Your task to perform on an android device: stop showing notifications on the lock screen Image 0: 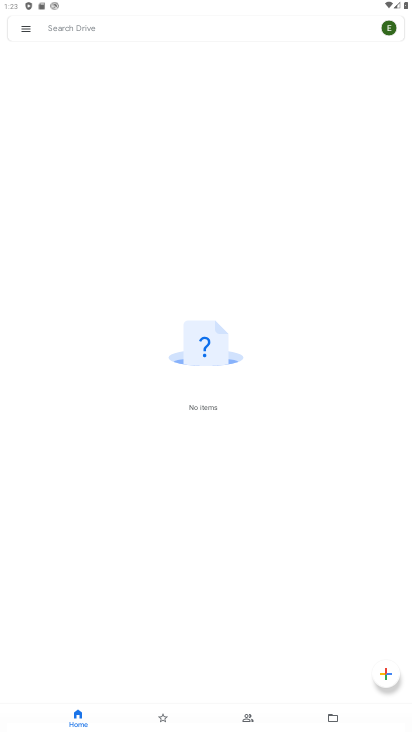
Step 0: press home button
Your task to perform on an android device: stop showing notifications on the lock screen Image 1: 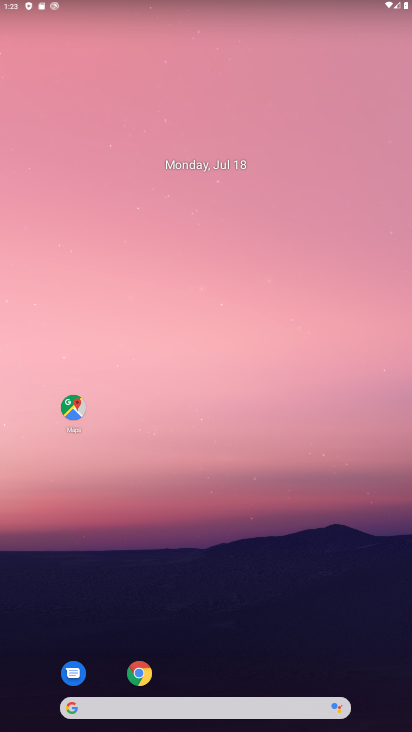
Step 1: drag from (255, 711) to (280, 173)
Your task to perform on an android device: stop showing notifications on the lock screen Image 2: 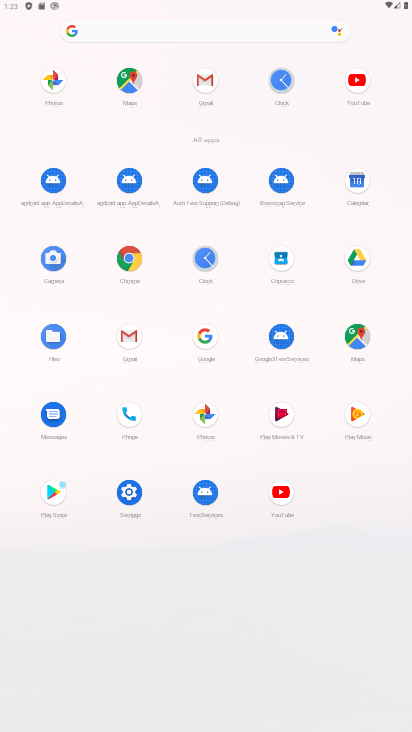
Step 2: click (139, 497)
Your task to perform on an android device: stop showing notifications on the lock screen Image 3: 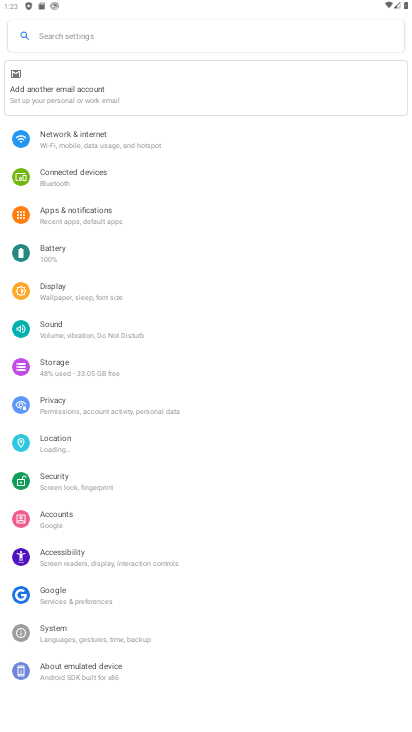
Step 3: click (92, 36)
Your task to perform on an android device: stop showing notifications on the lock screen Image 4: 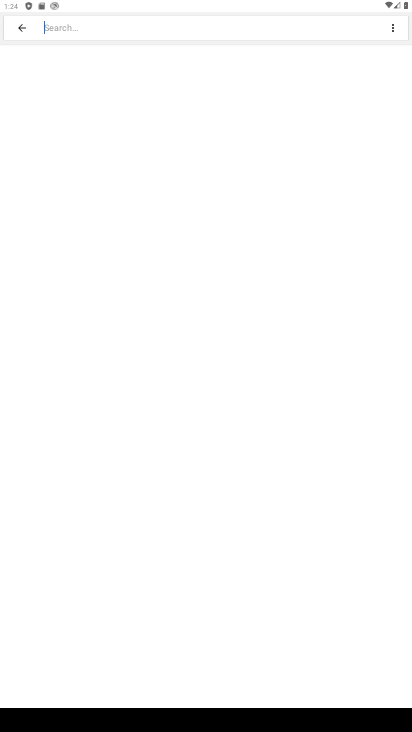
Step 4: drag from (365, 724) to (409, 537)
Your task to perform on an android device: stop showing notifications on the lock screen Image 5: 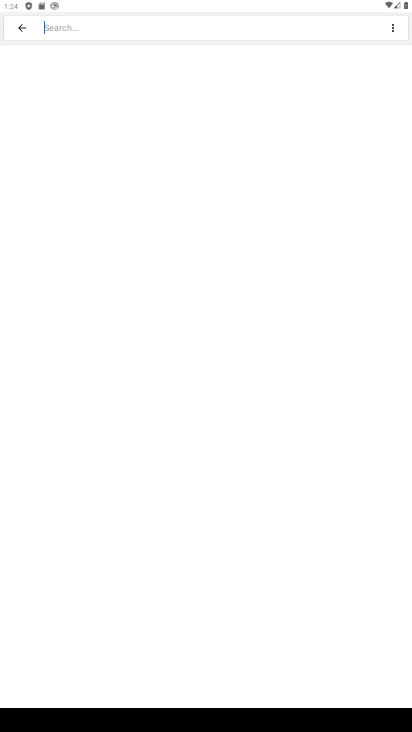
Step 5: click (392, 714)
Your task to perform on an android device: stop showing notifications on the lock screen Image 6: 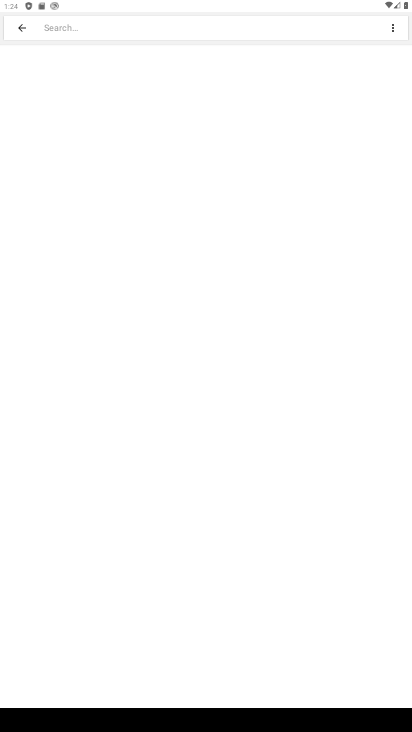
Step 6: click (92, 12)
Your task to perform on an android device: stop showing notifications on the lock screen Image 7: 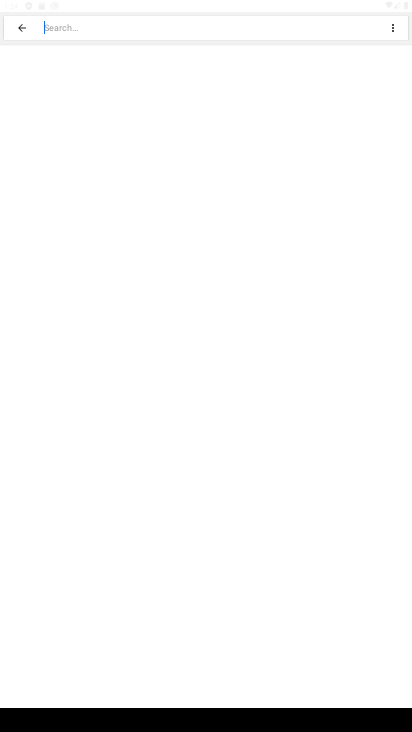
Step 7: click (362, 721)
Your task to perform on an android device: stop showing notifications on the lock screen Image 8: 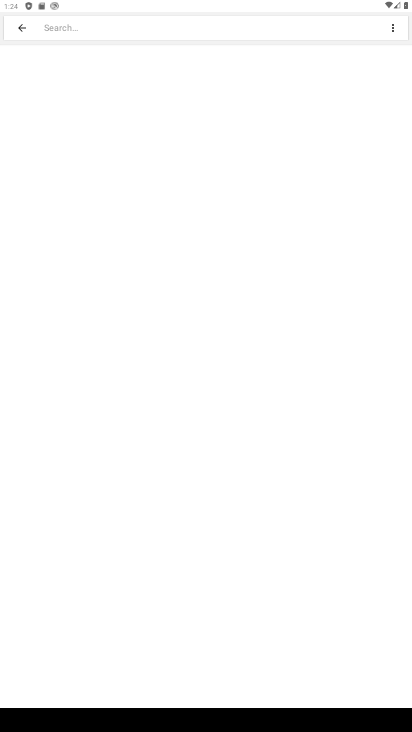
Step 8: drag from (372, 724) to (381, 563)
Your task to perform on an android device: stop showing notifications on the lock screen Image 9: 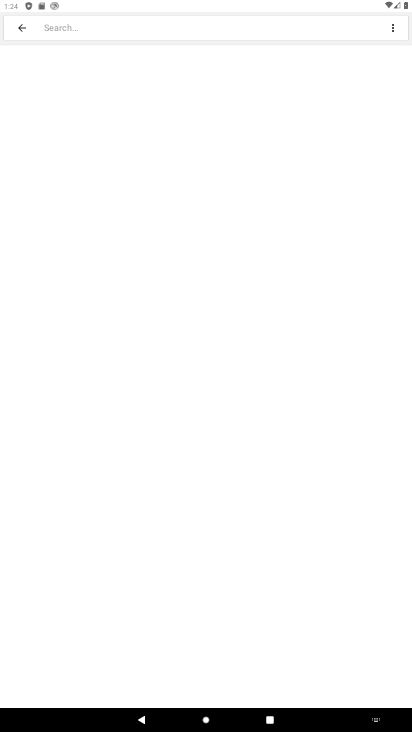
Step 9: click (375, 722)
Your task to perform on an android device: stop showing notifications on the lock screen Image 10: 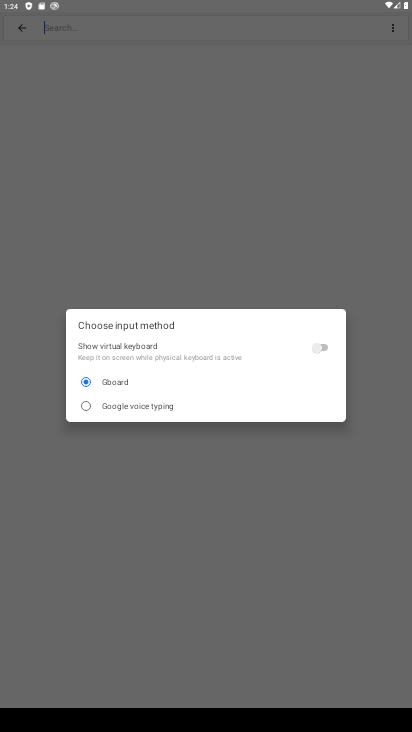
Step 10: click (323, 349)
Your task to perform on an android device: stop showing notifications on the lock screen Image 11: 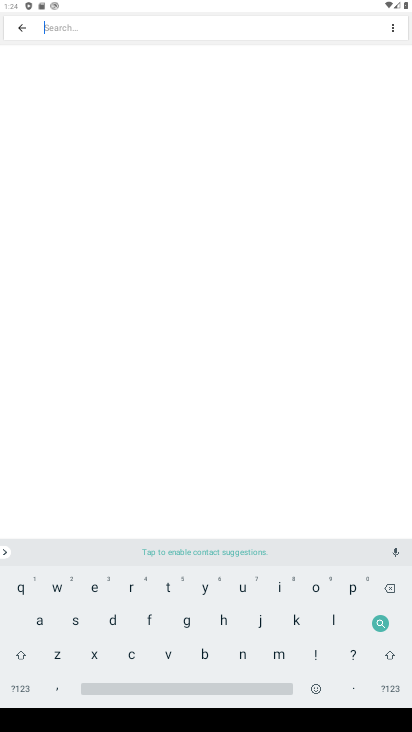
Step 11: click (235, 648)
Your task to perform on an android device: stop showing notifications on the lock screen Image 12: 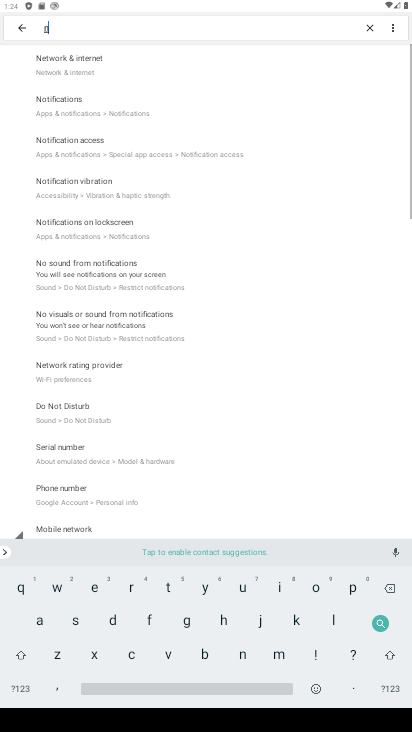
Step 12: click (317, 577)
Your task to perform on an android device: stop showing notifications on the lock screen Image 13: 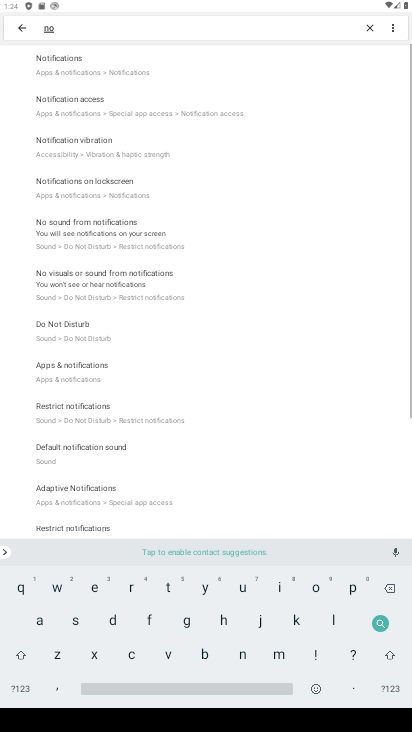
Step 13: click (81, 63)
Your task to perform on an android device: stop showing notifications on the lock screen Image 14: 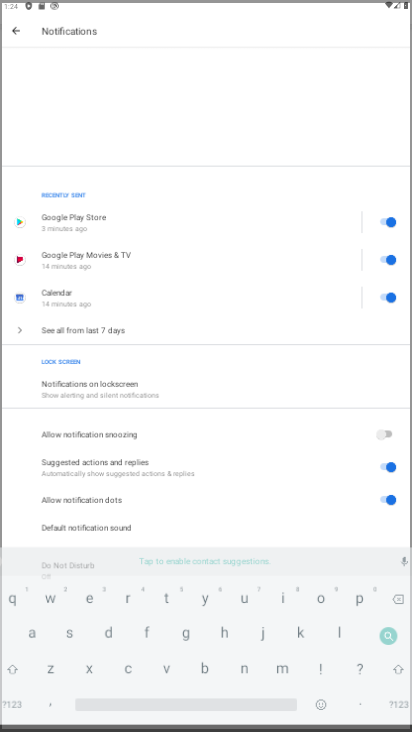
Step 14: click (67, 66)
Your task to perform on an android device: stop showing notifications on the lock screen Image 15: 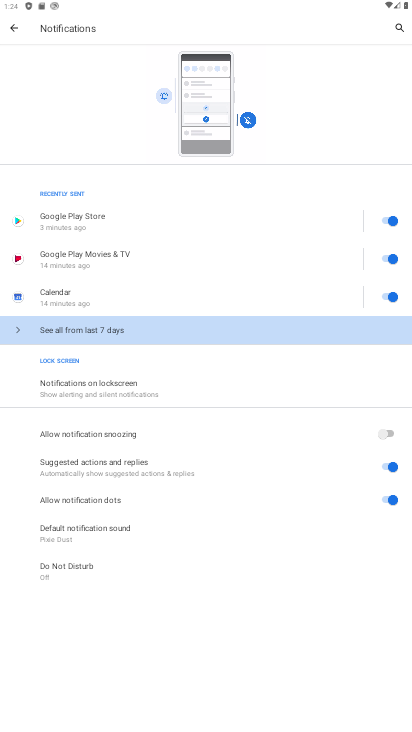
Step 15: click (95, 381)
Your task to perform on an android device: stop showing notifications on the lock screen Image 16: 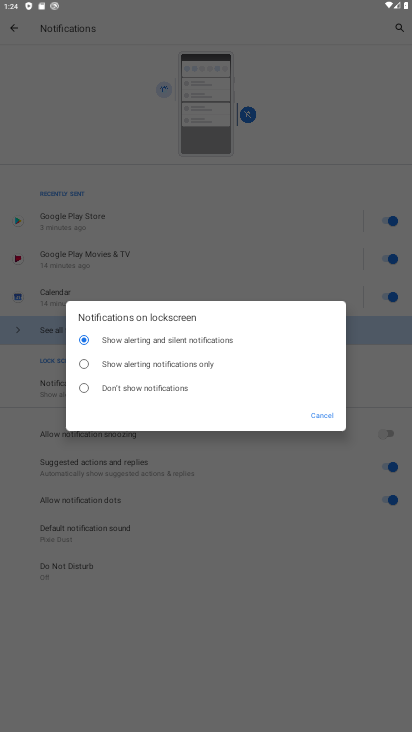
Step 16: click (112, 386)
Your task to perform on an android device: stop showing notifications on the lock screen Image 17: 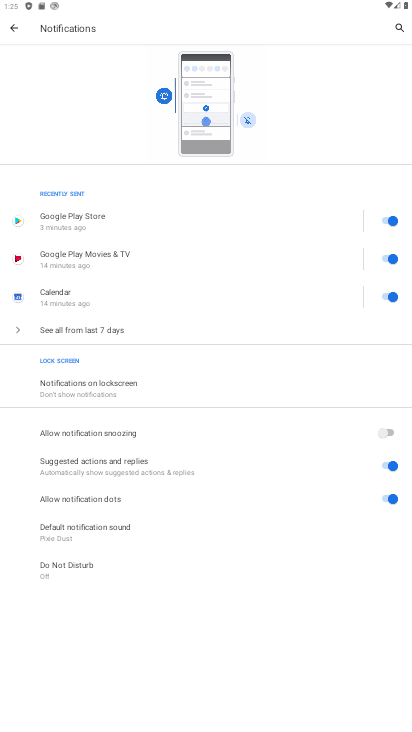
Step 17: task complete